Your task to perform on an android device: Go to settings Image 0: 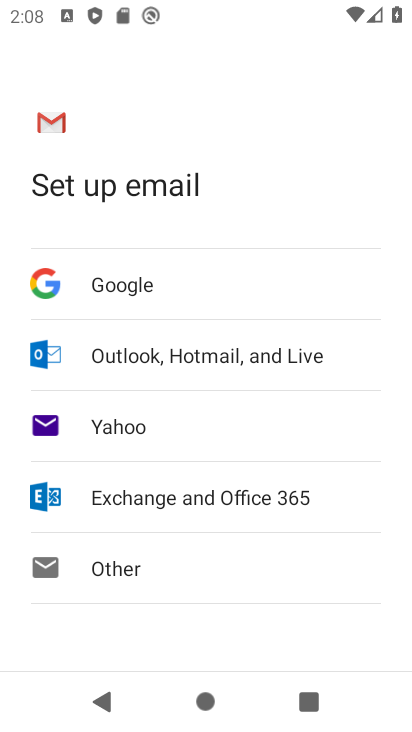
Step 0: press home button
Your task to perform on an android device: Go to settings Image 1: 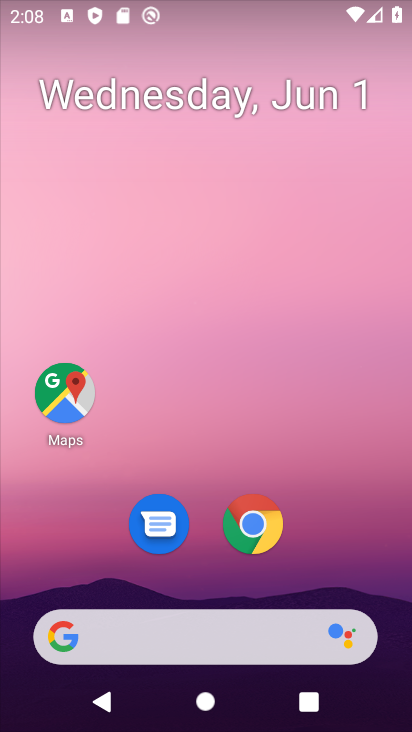
Step 1: drag from (324, 512) to (235, 100)
Your task to perform on an android device: Go to settings Image 2: 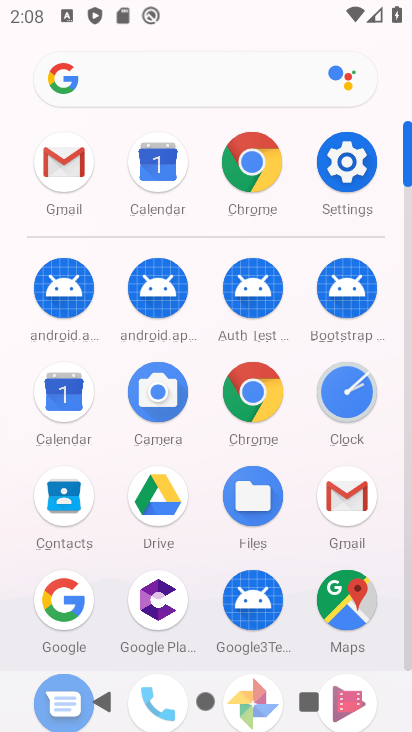
Step 2: click (341, 164)
Your task to perform on an android device: Go to settings Image 3: 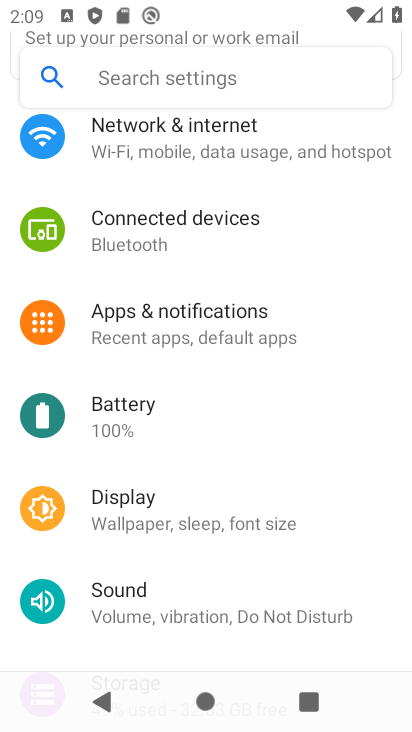
Step 3: task complete